Your task to perform on an android device: snooze an email in the gmail app Image 0: 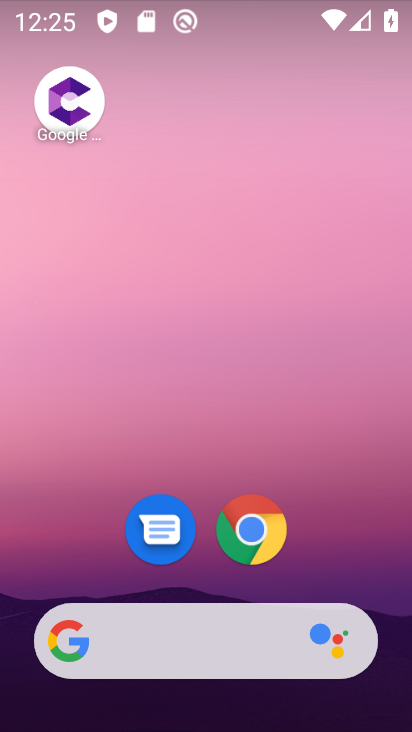
Step 0: drag from (389, 612) to (299, 57)
Your task to perform on an android device: snooze an email in the gmail app Image 1: 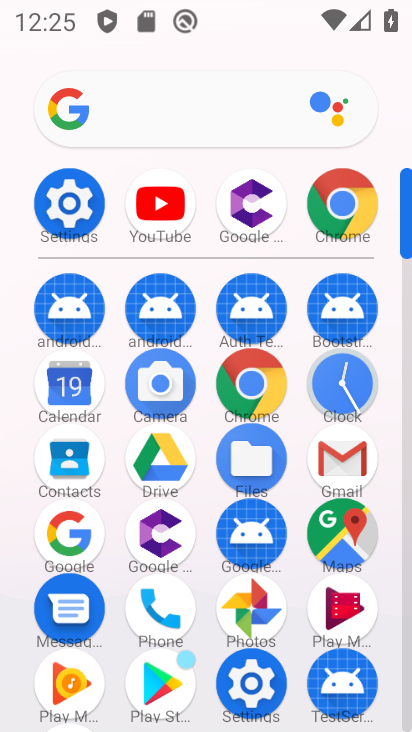
Step 1: click (330, 477)
Your task to perform on an android device: snooze an email in the gmail app Image 2: 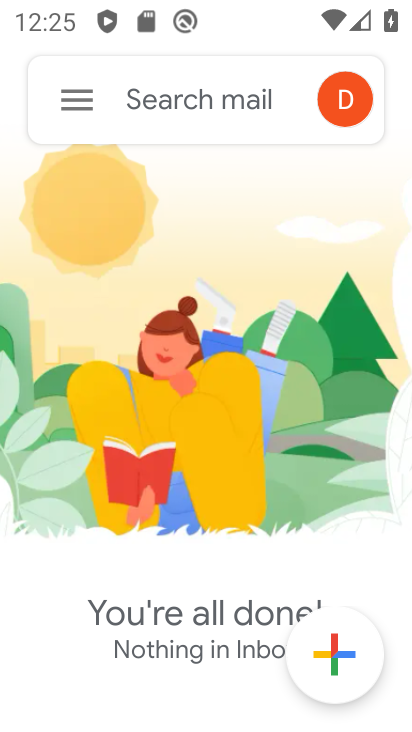
Step 2: task complete